Your task to perform on an android device: Search for Mexican restaurants on Maps Image 0: 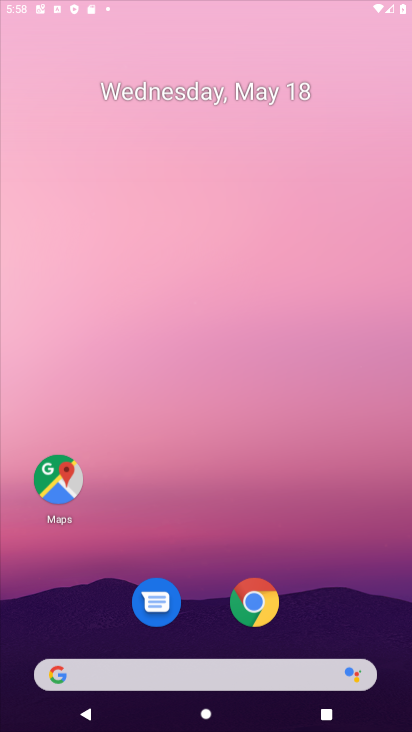
Step 0: drag from (349, 672) to (362, 47)
Your task to perform on an android device: Search for Mexican restaurants on Maps Image 1: 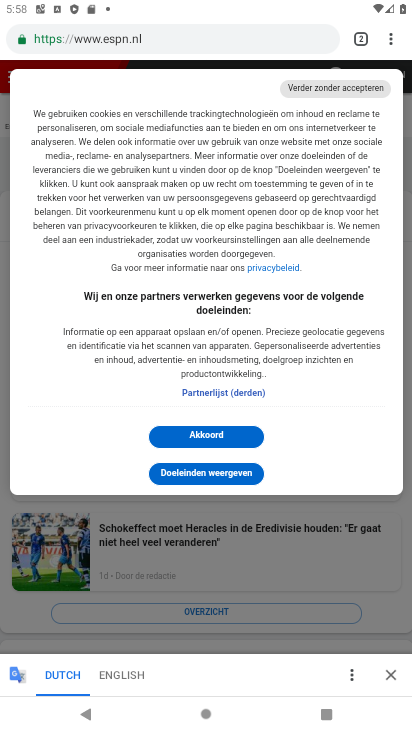
Step 1: press home button
Your task to perform on an android device: Search for Mexican restaurants on Maps Image 2: 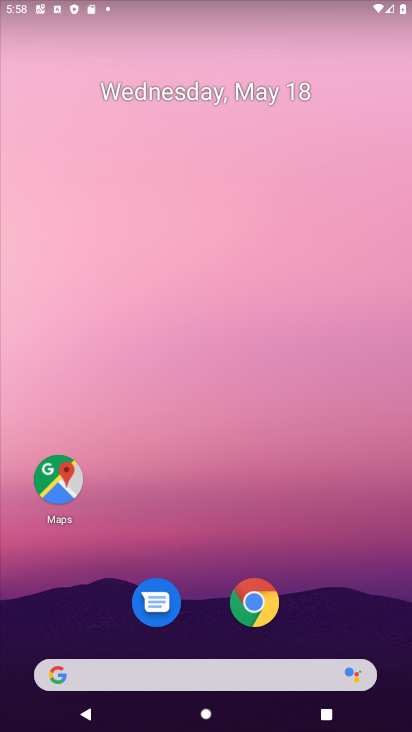
Step 2: drag from (325, 671) to (251, 167)
Your task to perform on an android device: Search for Mexican restaurants on Maps Image 3: 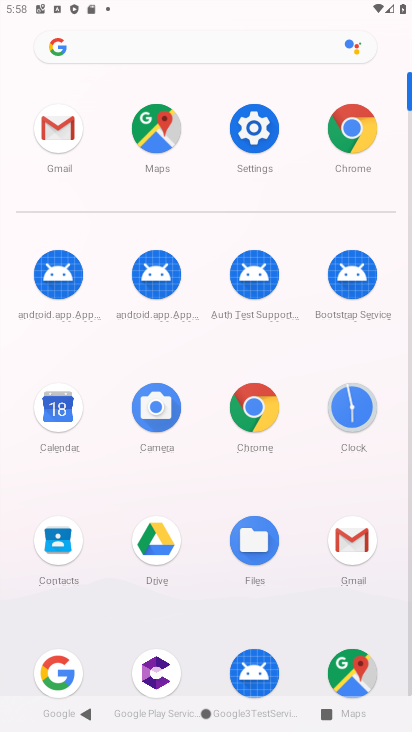
Step 3: click (345, 669)
Your task to perform on an android device: Search for Mexican restaurants on Maps Image 4: 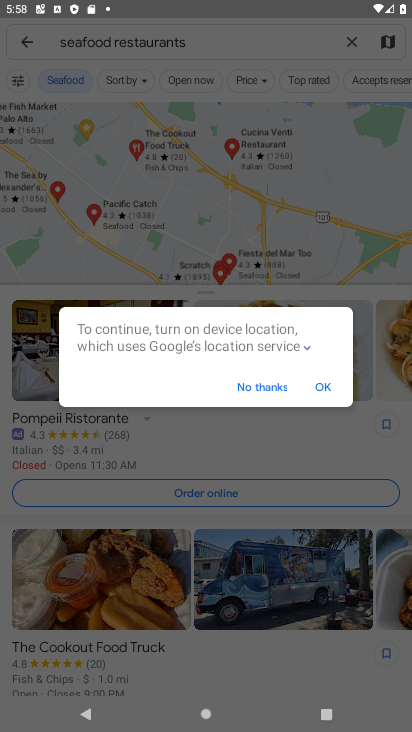
Step 4: click (316, 386)
Your task to perform on an android device: Search for Mexican restaurants on Maps Image 5: 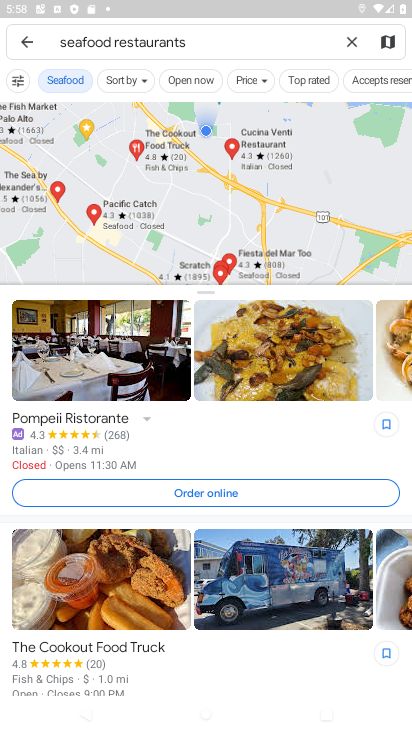
Step 5: press back button
Your task to perform on an android device: Search for Mexican restaurants on Maps Image 6: 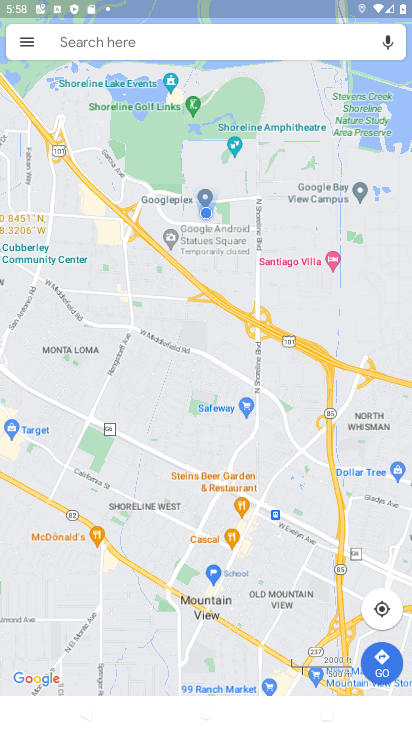
Step 6: click (240, 45)
Your task to perform on an android device: Search for Mexican restaurants on Maps Image 7: 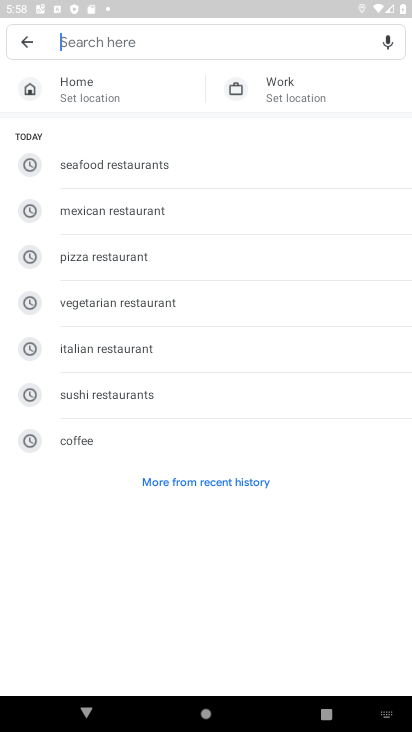
Step 7: click (136, 206)
Your task to perform on an android device: Search for Mexican restaurants on Maps Image 8: 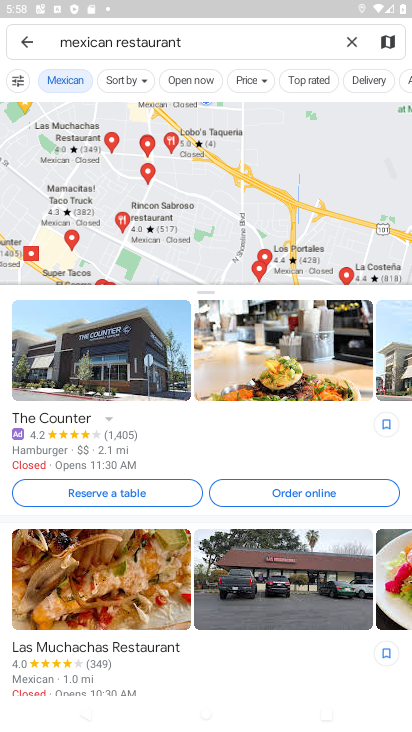
Step 8: task complete